Your task to perform on an android device: Turn on the flashlight Image 0: 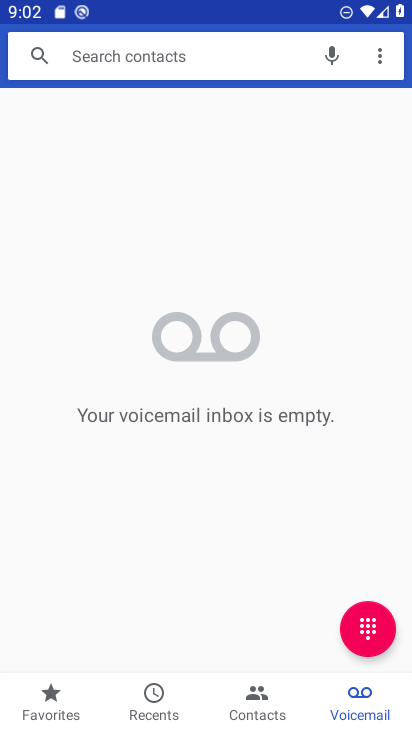
Step 0: press back button
Your task to perform on an android device: Turn on the flashlight Image 1: 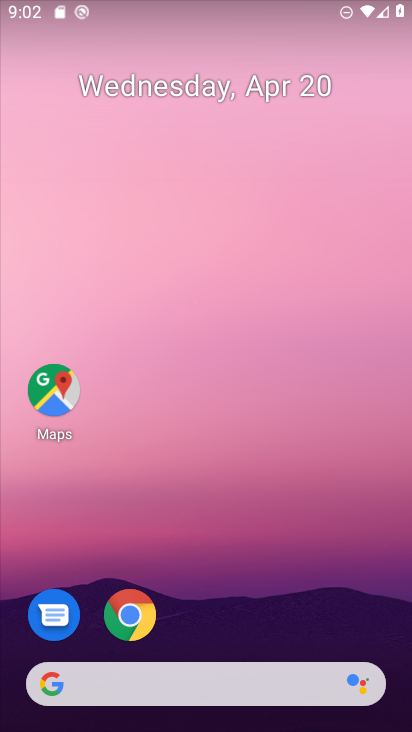
Step 1: drag from (239, 608) to (286, 38)
Your task to perform on an android device: Turn on the flashlight Image 2: 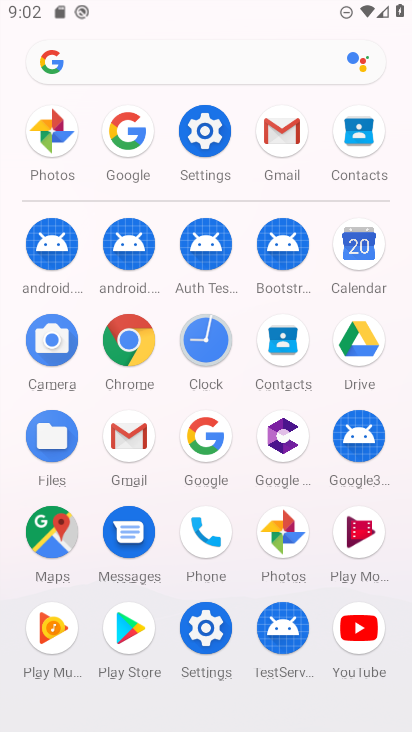
Step 2: click (205, 130)
Your task to perform on an android device: Turn on the flashlight Image 3: 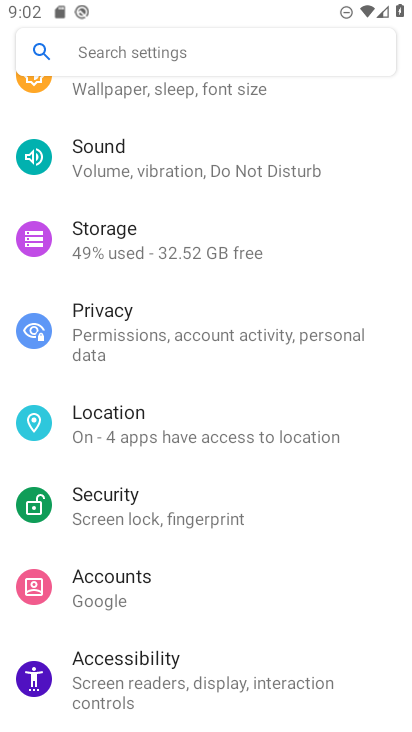
Step 3: drag from (179, 495) to (279, 380)
Your task to perform on an android device: Turn on the flashlight Image 4: 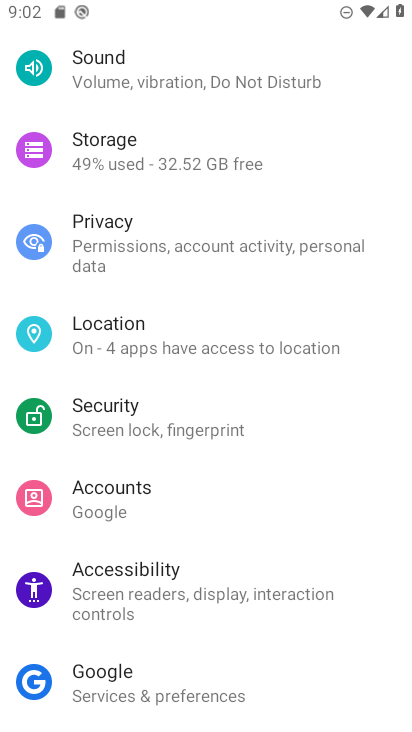
Step 4: drag from (245, 543) to (273, 464)
Your task to perform on an android device: Turn on the flashlight Image 5: 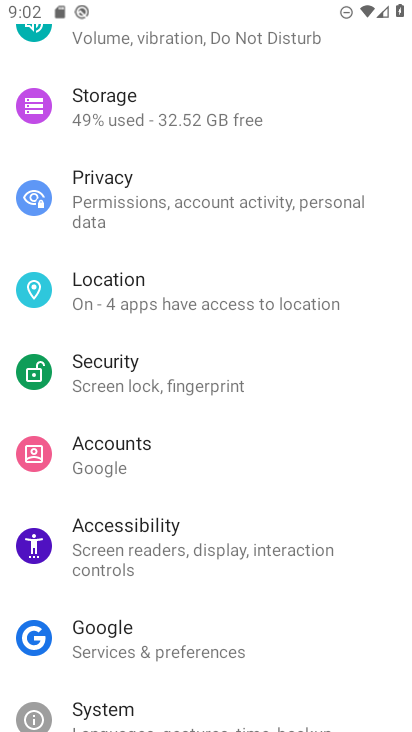
Step 5: click (155, 524)
Your task to perform on an android device: Turn on the flashlight Image 6: 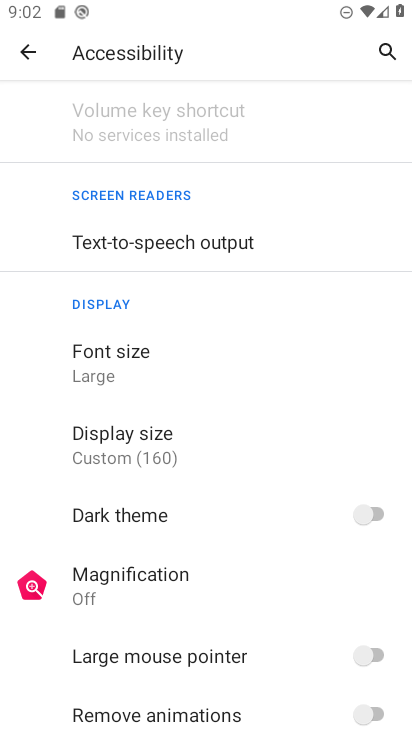
Step 6: drag from (233, 486) to (275, 414)
Your task to perform on an android device: Turn on the flashlight Image 7: 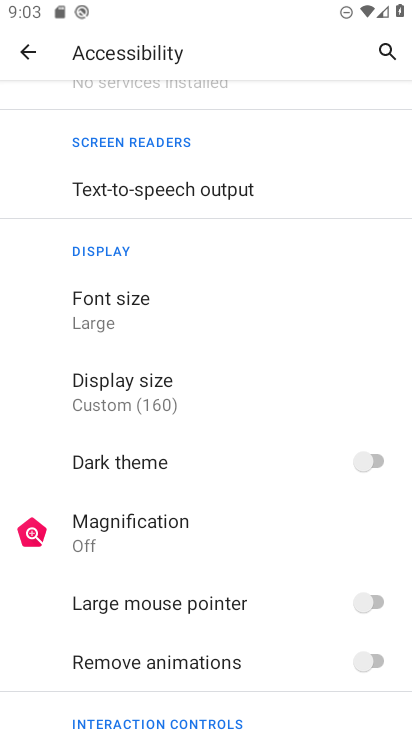
Step 7: drag from (239, 525) to (293, 444)
Your task to perform on an android device: Turn on the flashlight Image 8: 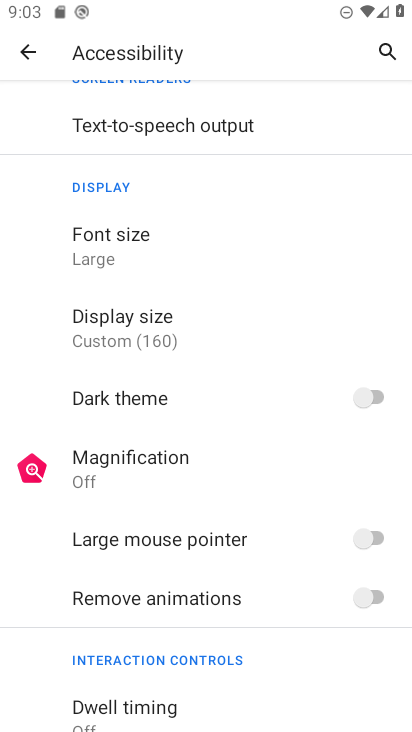
Step 8: drag from (220, 561) to (261, 491)
Your task to perform on an android device: Turn on the flashlight Image 9: 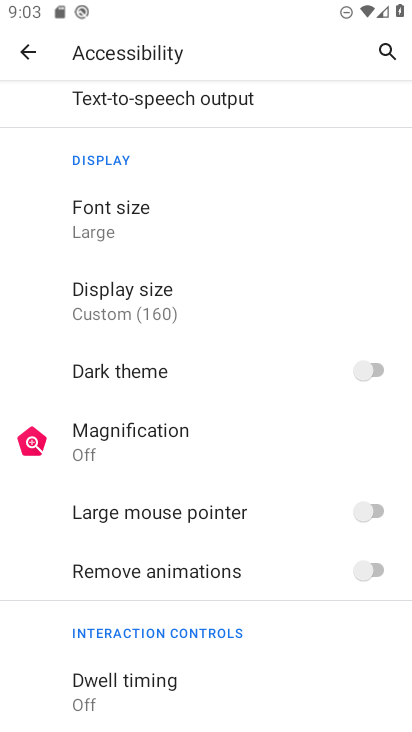
Step 9: drag from (248, 618) to (249, 544)
Your task to perform on an android device: Turn on the flashlight Image 10: 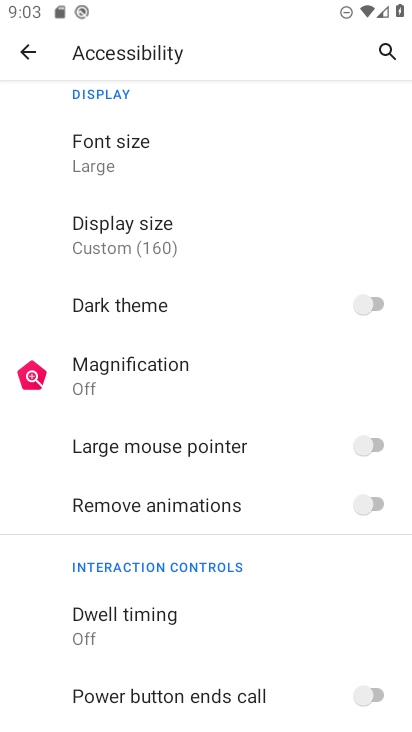
Step 10: drag from (241, 632) to (271, 548)
Your task to perform on an android device: Turn on the flashlight Image 11: 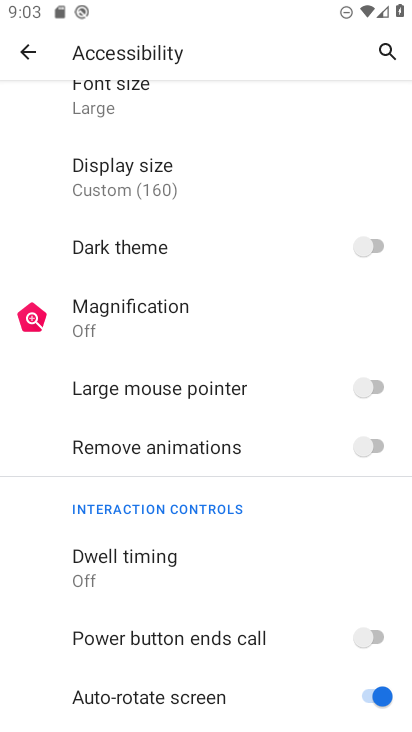
Step 11: drag from (237, 669) to (252, 575)
Your task to perform on an android device: Turn on the flashlight Image 12: 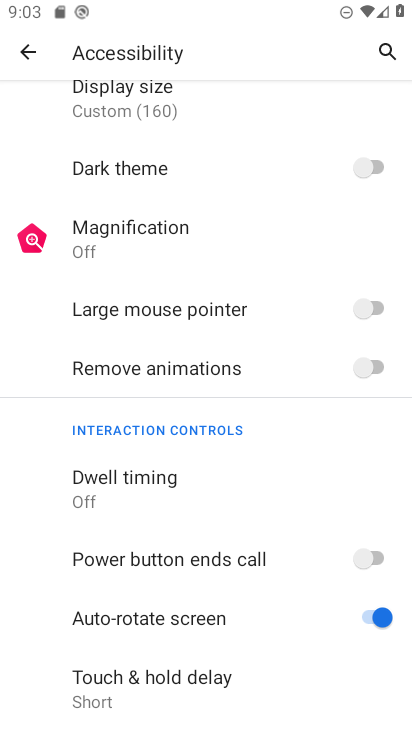
Step 12: drag from (244, 654) to (276, 573)
Your task to perform on an android device: Turn on the flashlight Image 13: 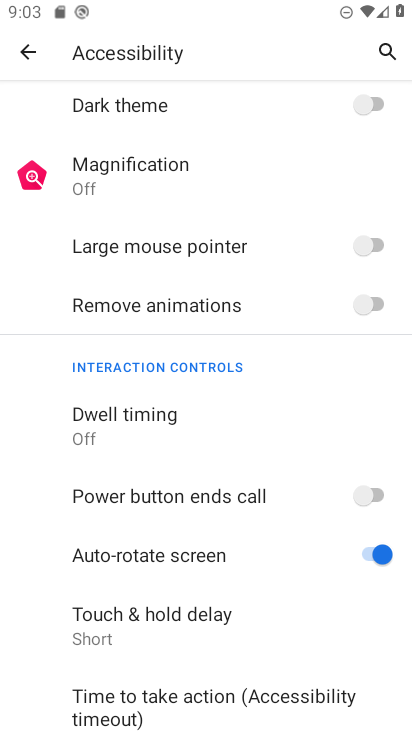
Step 13: drag from (248, 646) to (276, 584)
Your task to perform on an android device: Turn on the flashlight Image 14: 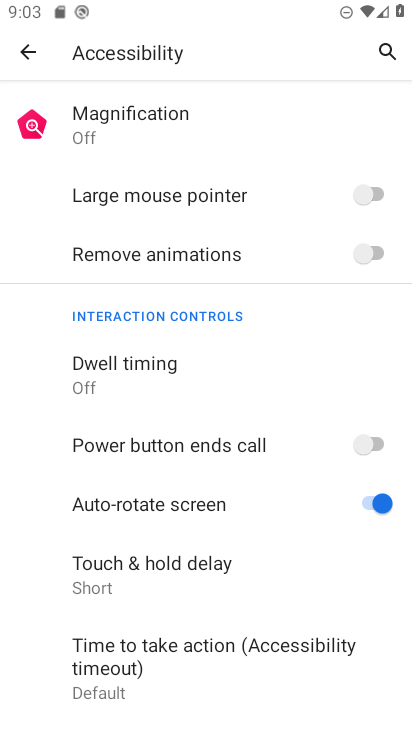
Step 14: drag from (245, 675) to (264, 592)
Your task to perform on an android device: Turn on the flashlight Image 15: 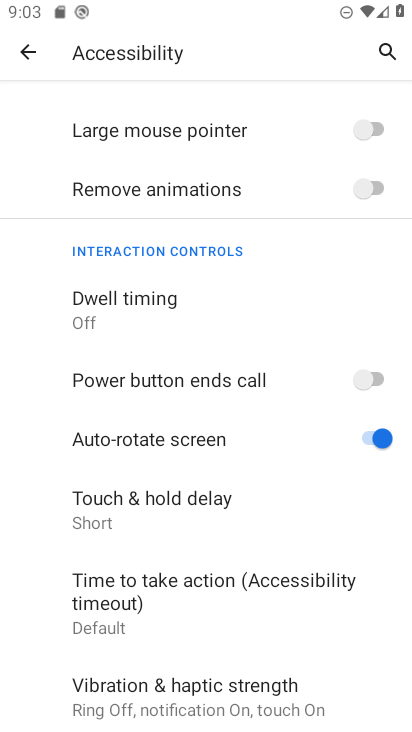
Step 15: drag from (247, 645) to (294, 564)
Your task to perform on an android device: Turn on the flashlight Image 16: 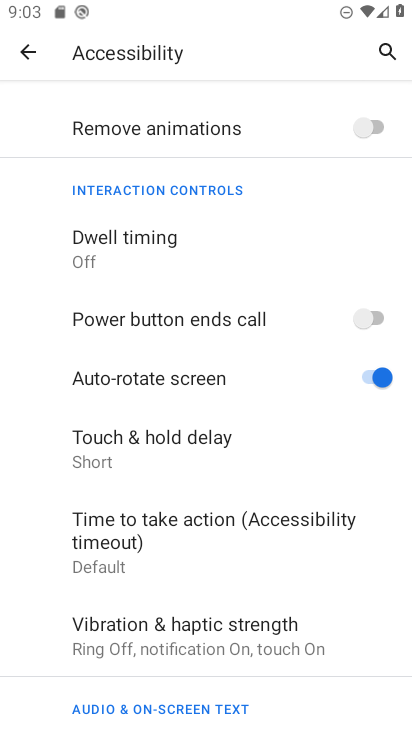
Step 16: drag from (244, 655) to (306, 547)
Your task to perform on an android device: Turn on the flashlight Image 17: 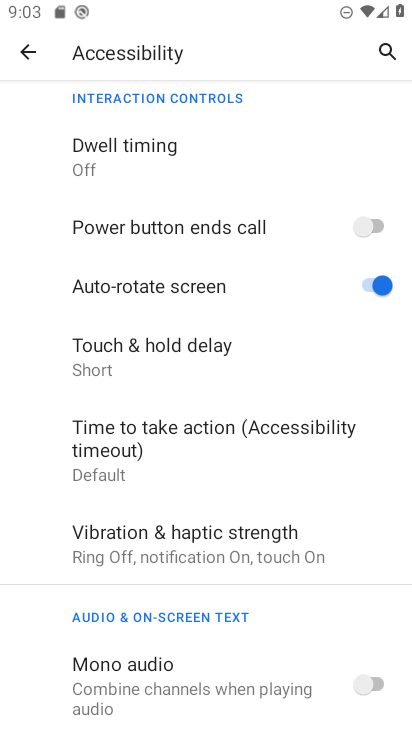
Step 17: click (265, 575)
Your task to perform on an android device: Turn on the flashlight Image 18: 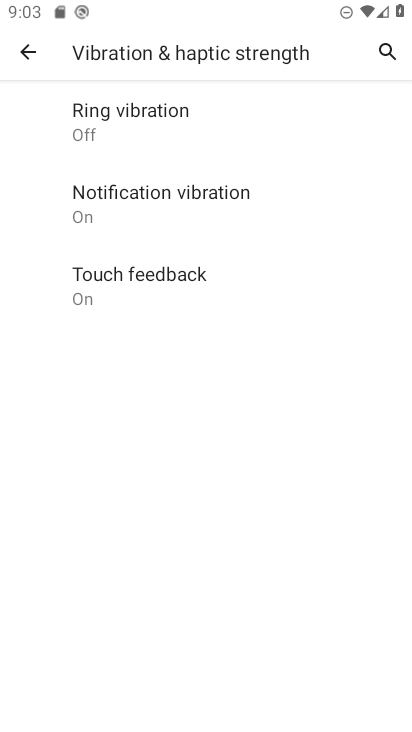
Step 18: press back button
Your task to perform on an android device: Turn on the flashlight Image 19: 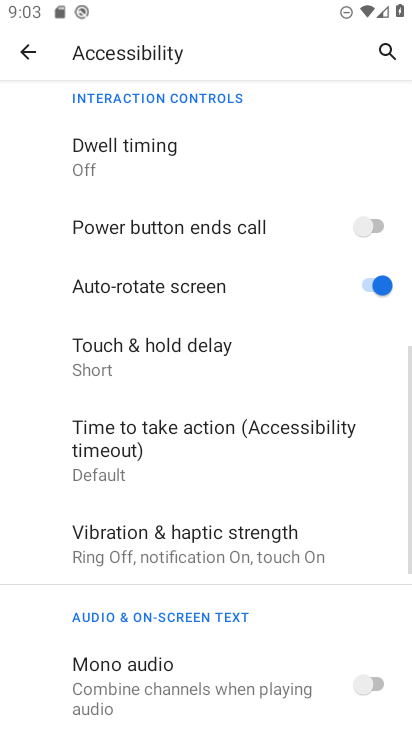
Step 19: drag from (251, 544) to (280, 434)
Your task to perform on an android device: Turn on the flashlight Image 20: 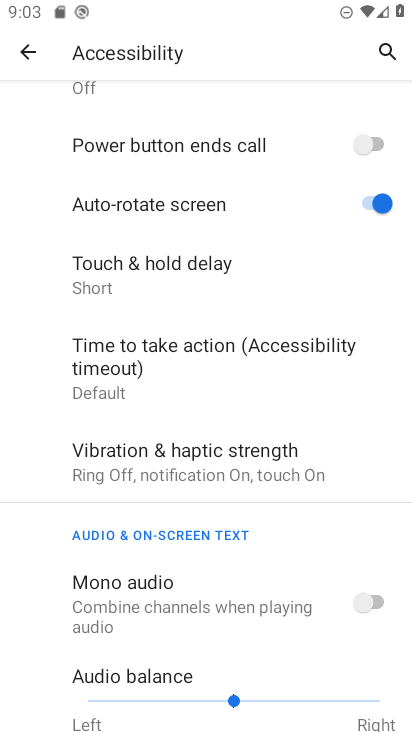
Step 20: drag from (222, 579) to (289, 466)
Your task to perform on an android device: Turn on the flashlight Image 21: 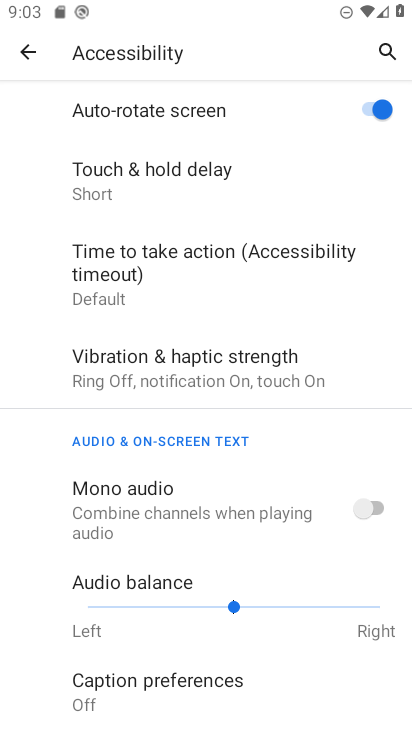
Step 21: drag from (243, 658) to (302, 477)
Your task to perform on an android device: Turn on the flashlight Image 22: 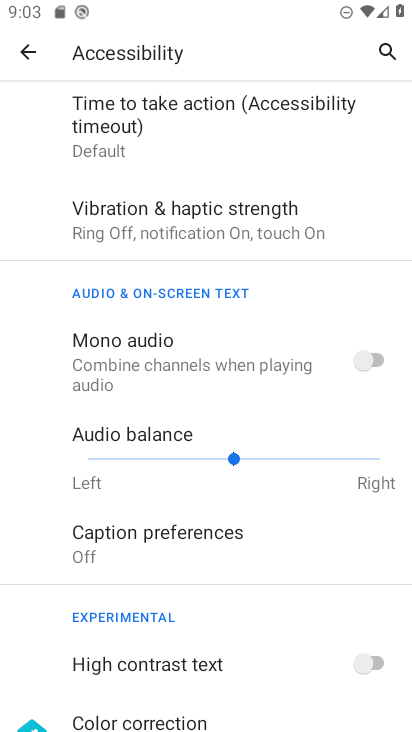
Step 22: drag from (236, 641) to (323, 532)
Your task to perform on an android device: Turn on the flashlight Image 23: 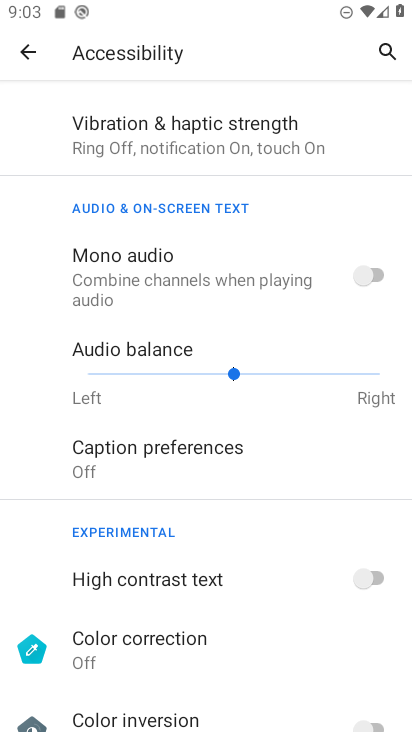
Step 23: drag from (265, 640) to (371, 496)
Your task to perform on an android device: Turn on the flashlight Image 24: 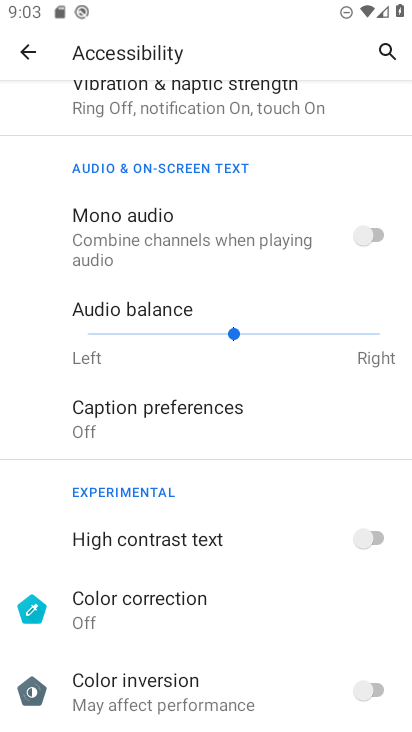
Step 24: drag from (167, 559) to (263, 382)
Your task to perform on an android device: Turn on the flashlight Image 25: 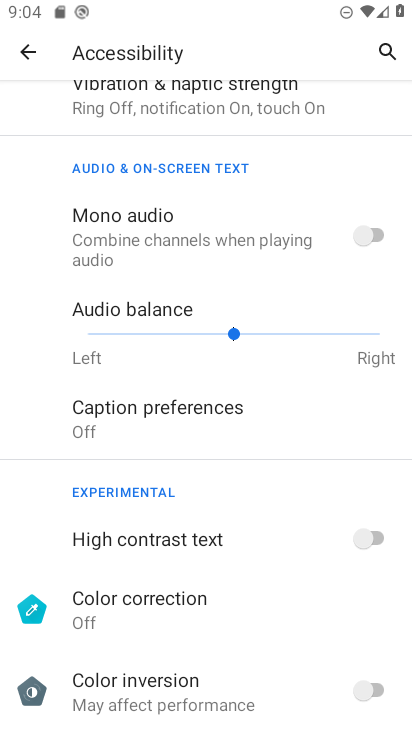
Step 25: drag from (159, 571) to (229, 380)
Your task to perform on an android device: Turn on the flashlight Image 26: 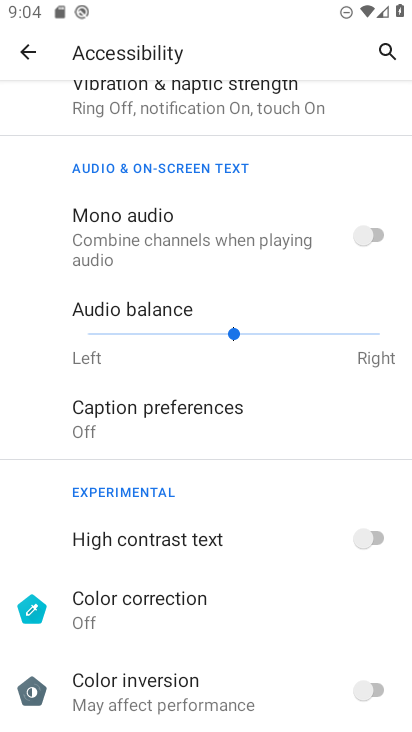
Step 26: press back button
Your task to perform on an android device: Turn on the flashlight Image 27: 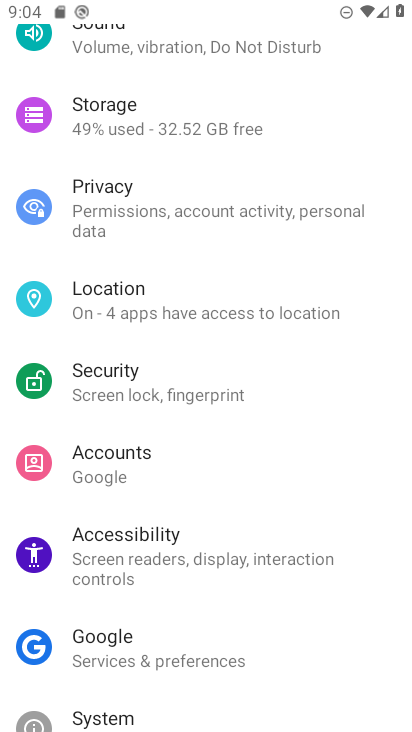
Step 27: drag from (237, 372) to (265, 470)
Your task to perform on an android device: Turn on the flashlight Image 28: 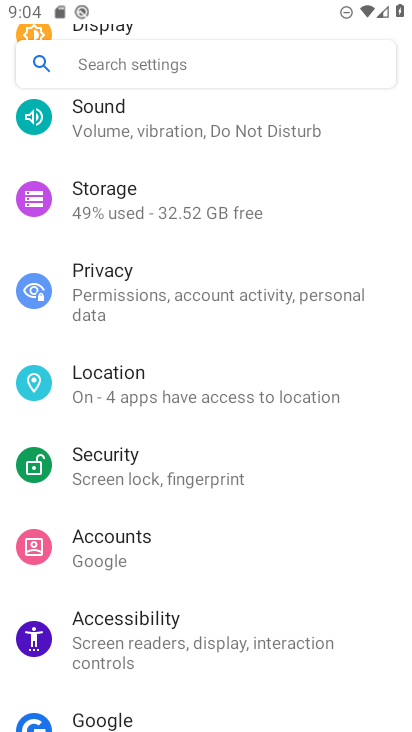
Step 28: drag from (248, 303) to (238, 442)
Your task to perform on an android device: Turn on the flashlight Image 29: 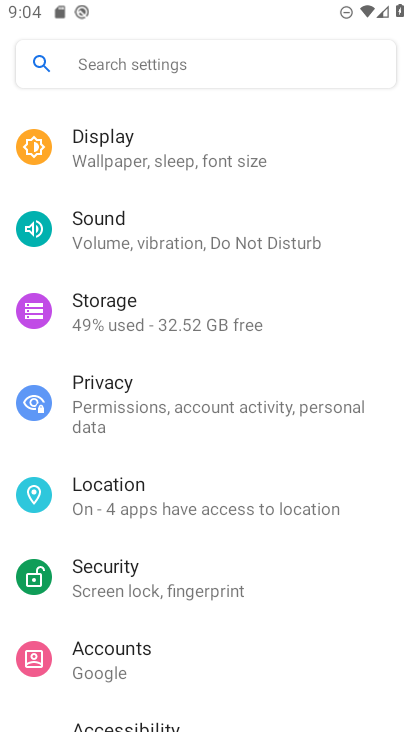
Step 29: drag from (263, 263) to (258, 354)
Your task to perform on an android device: Turn on the flashlight Image 30: 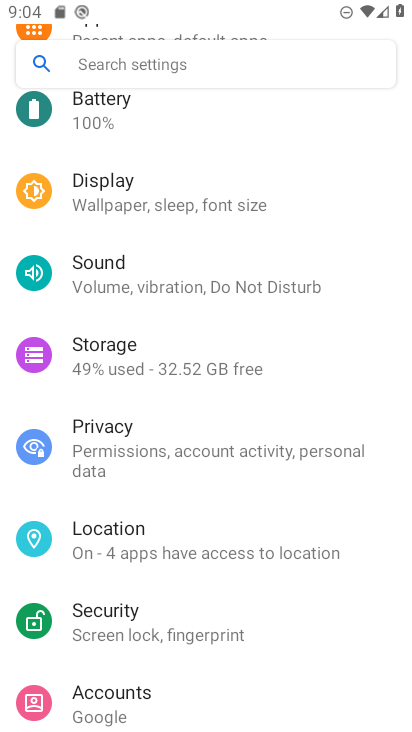
Step 30: click (108, 201)
Your task to perform on an android device: Turn on the flashlight Image 31: 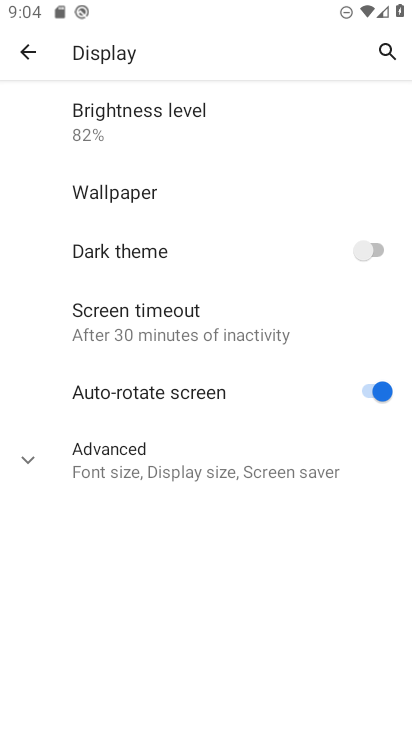
Step 31: click (191, 471)
Your task to perform on an android device: Turn on the flashlight Image 32: 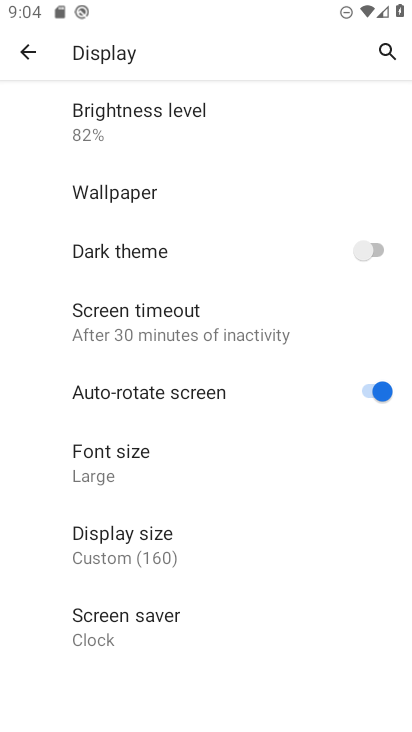
Step 32: task complete